Your task to perform on an android device: Open notification settings Image 0: 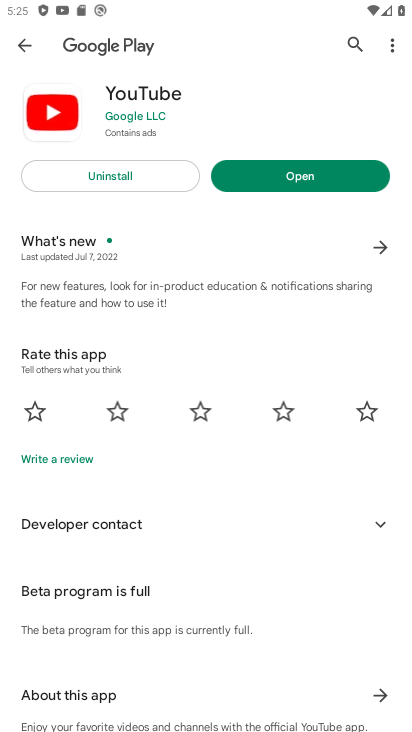
Step 0: press home button
Your task to perform on an android device: Open notification settings Image 1: 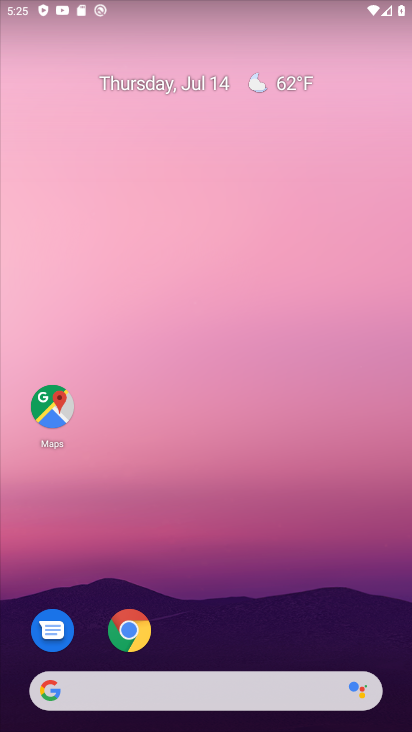
Step 1: drag from (240, 385) to (201, 134)
Your task to perform on an android device: Open notification settings Image 2: 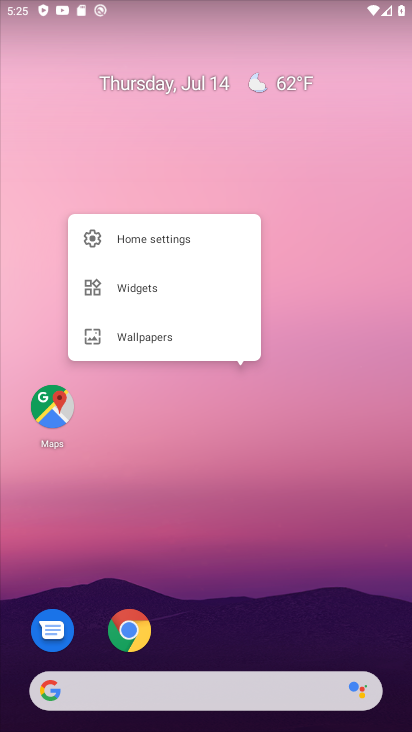
Step 2: drag from (186, 633) to (167, 140)
Your task to perform on an android device: Open notification settings Image 3: 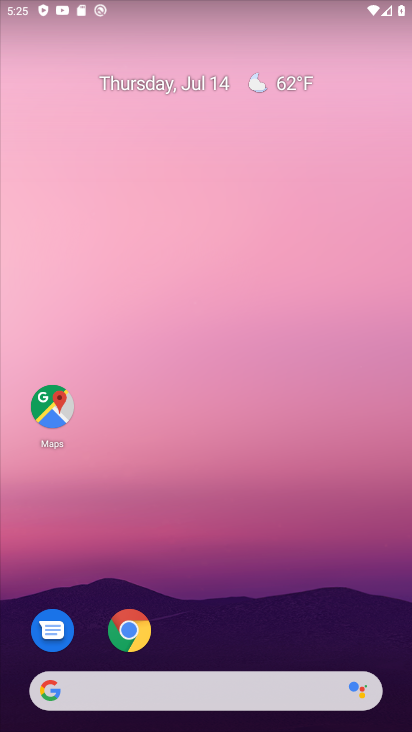
Step 3: drag from (221, 653) to (171, 180)
Your task to perform on an android device: Open notification settings Image 4: 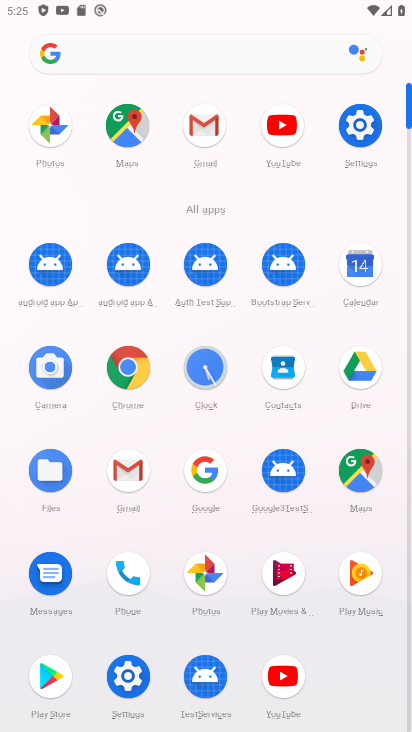
Step 4: click (356, 113)
Your task to perform on an android device: Open notification settings Image 5: 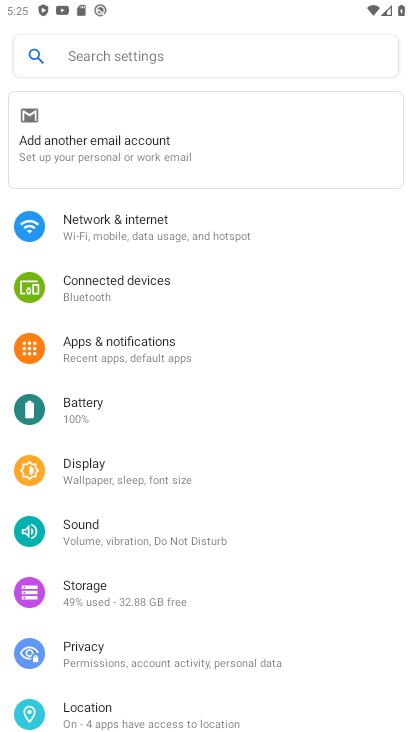
Step 5: click (160, 353)
Your task to perform on an android device: Open notification settings Image 6: 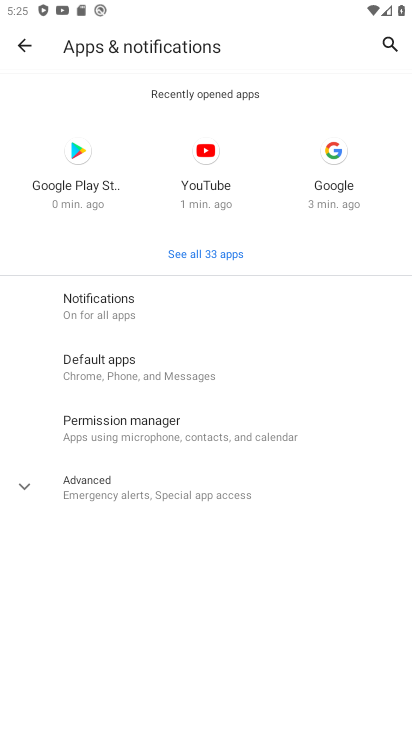
Step 6: task complete